Your task to perform on an android device: Go to CNN.com Image 0: 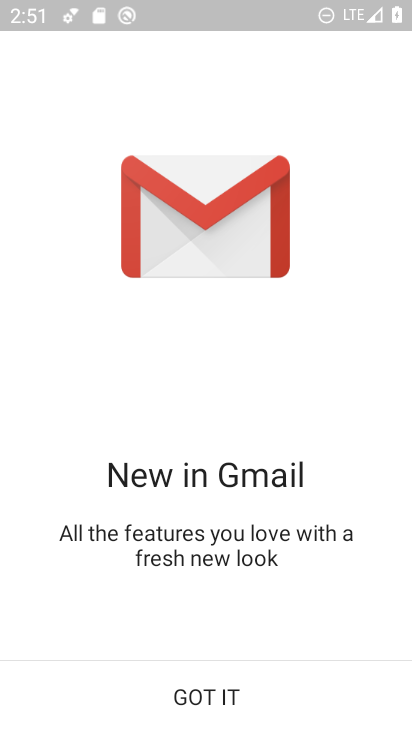
Step 0: press home button
Your task to perform on an android device: Go to CNN.com Image 1: 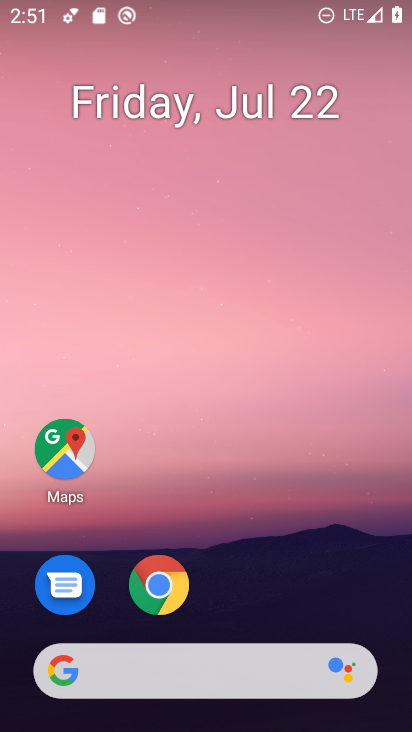
Step 1: click (254, 688)
Your task to perform on an android device: Go to CNN.com Image 2: 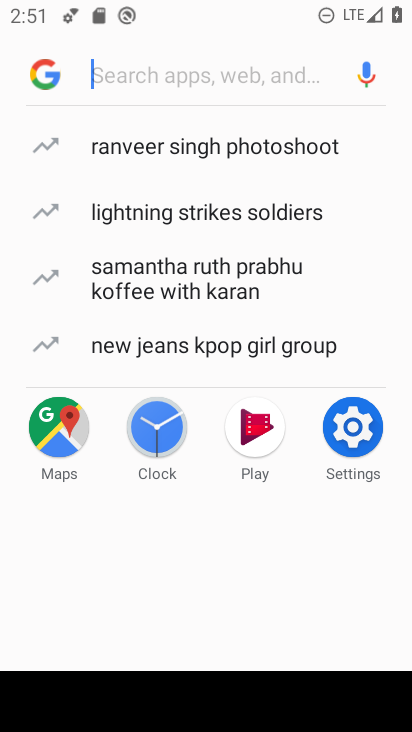
Step 2: type "cnn.com"
Your task to perform on an android device: Go to CNN.com Image 3: 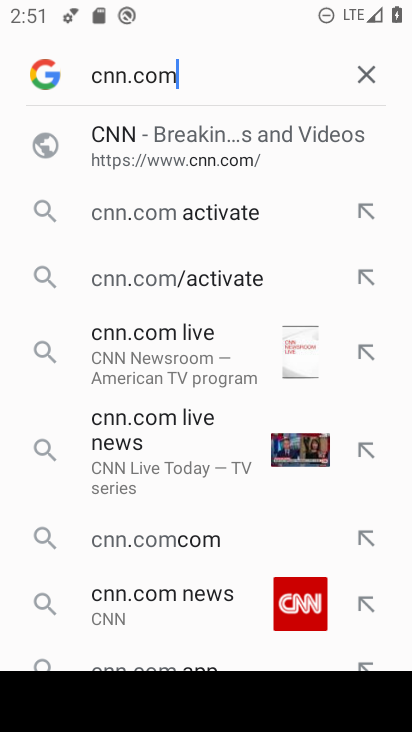
Step 3: click (238, 137)
Your task to perform on an android device: Go to CNN.com Image 4: 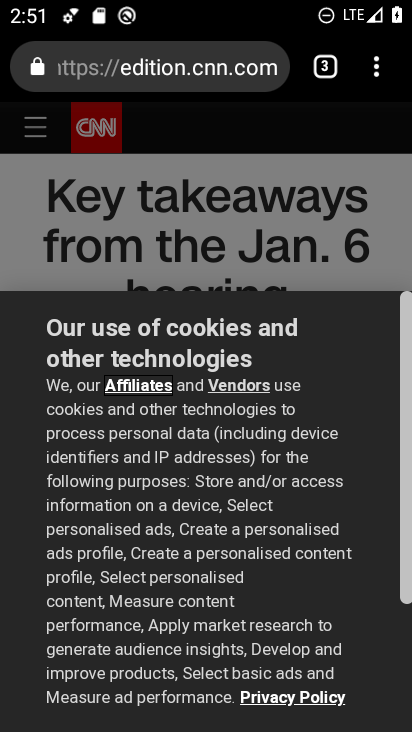
Step 4: task complete